Your task to perform on an android device: Search for macbook pro 13 inch on costco.com, select the first entry, add it to the cart, then select checkout. Image 0: 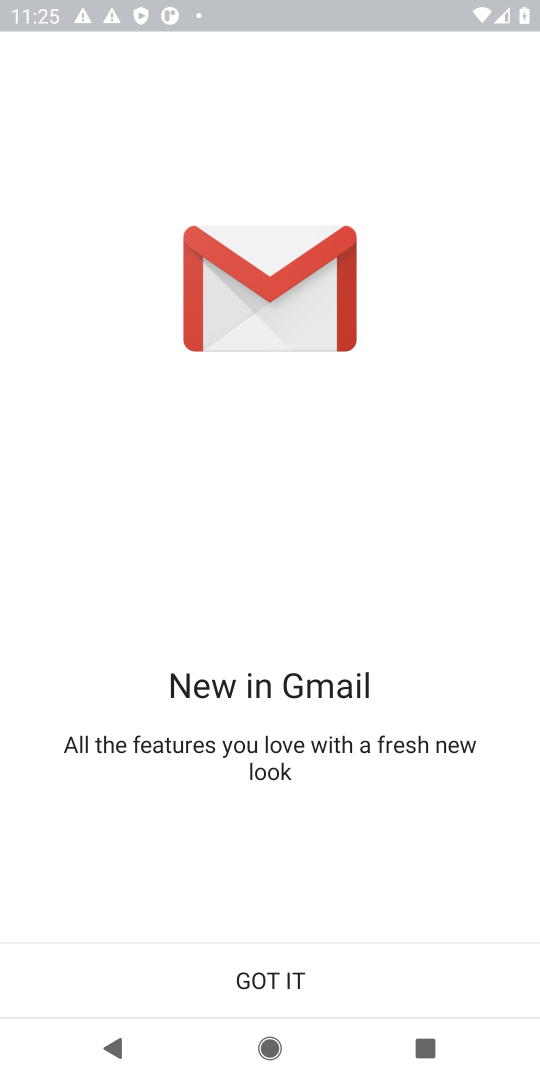
Step 0: press home button
Your task to perform on an android device: Search for macbook pro 13 inch on costco.com, select the first entry, add it to the cart, then select checkout. Image 1: 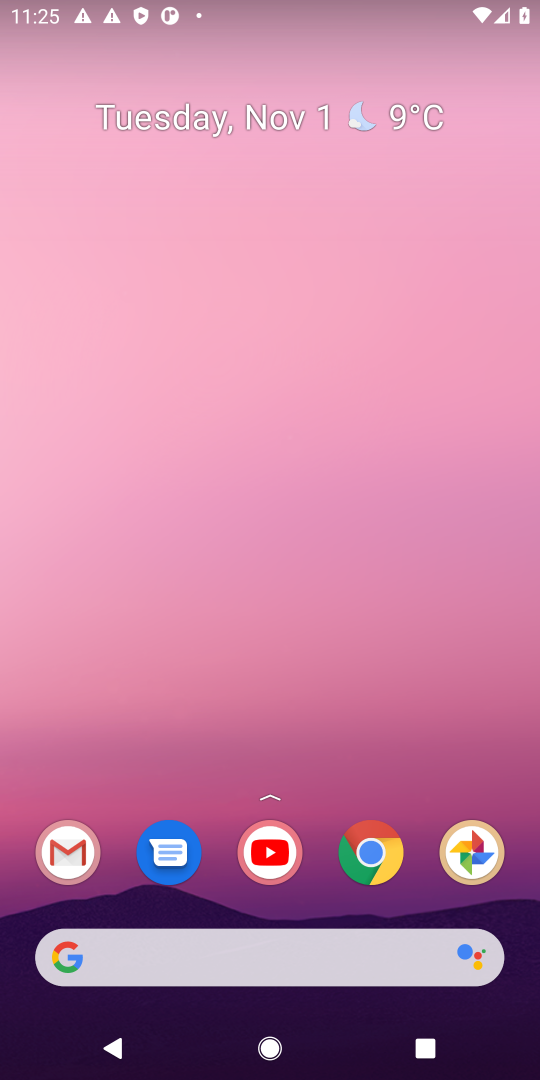
Step 1: drag from (342, 870) to (388, 343)
Your task to perform on an android device: Search for macbook pro 13 inch on costco.com, select the first entry, add it to the cart, then select checkout. Image 2: 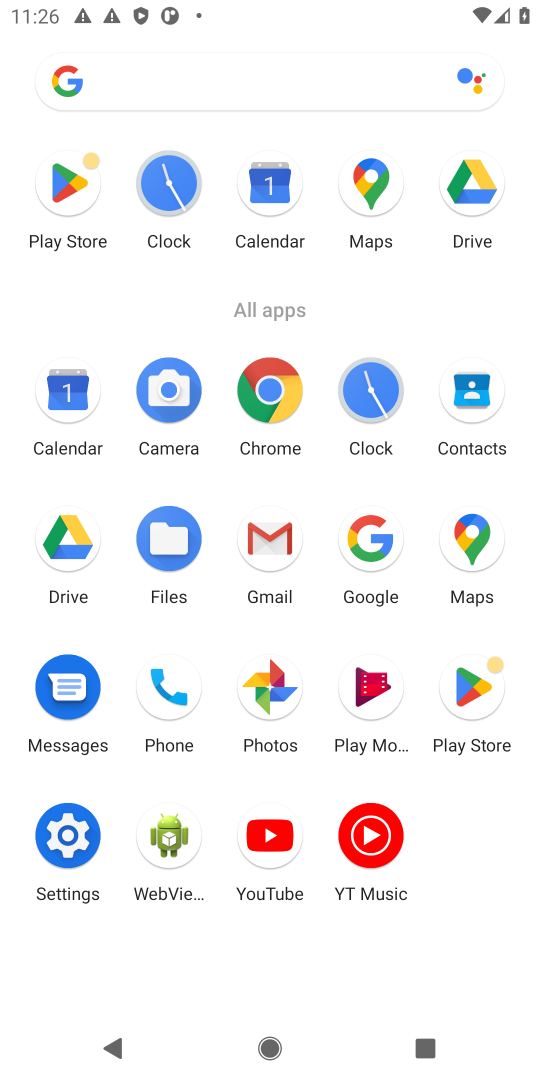
Step 2: click (379, 553)
Your task to perform on an android device: Search for macbook pro 13 inch on costco.com, select the first entry, add it to the cart, then select checkout. Image 3: 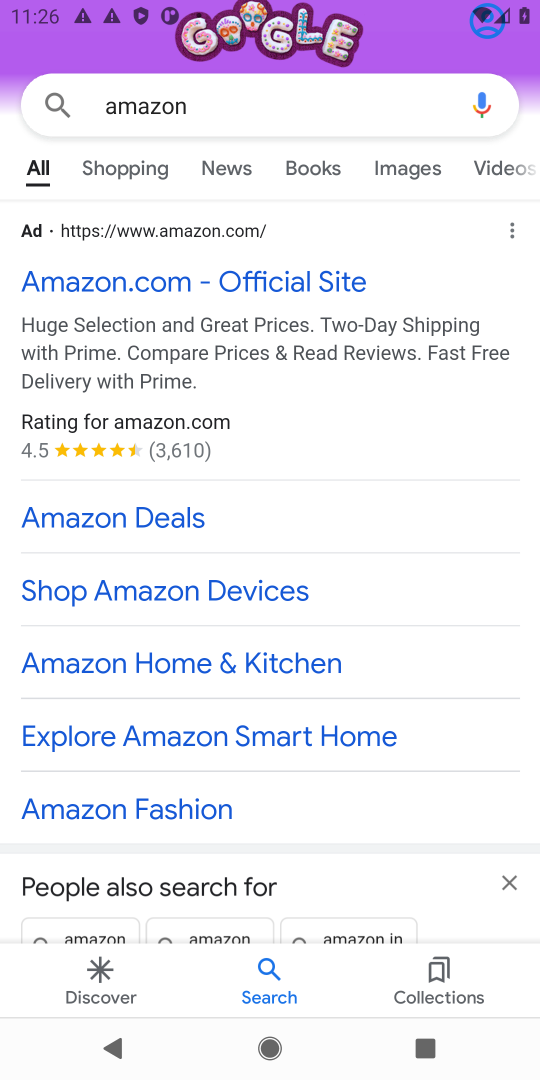
Step 3: click (371, 116)
Your task to perform on an android device: Search for macbook pro 13 inch on costco.com, select the first entry, add it to the cart, then select checkout. Image 4: 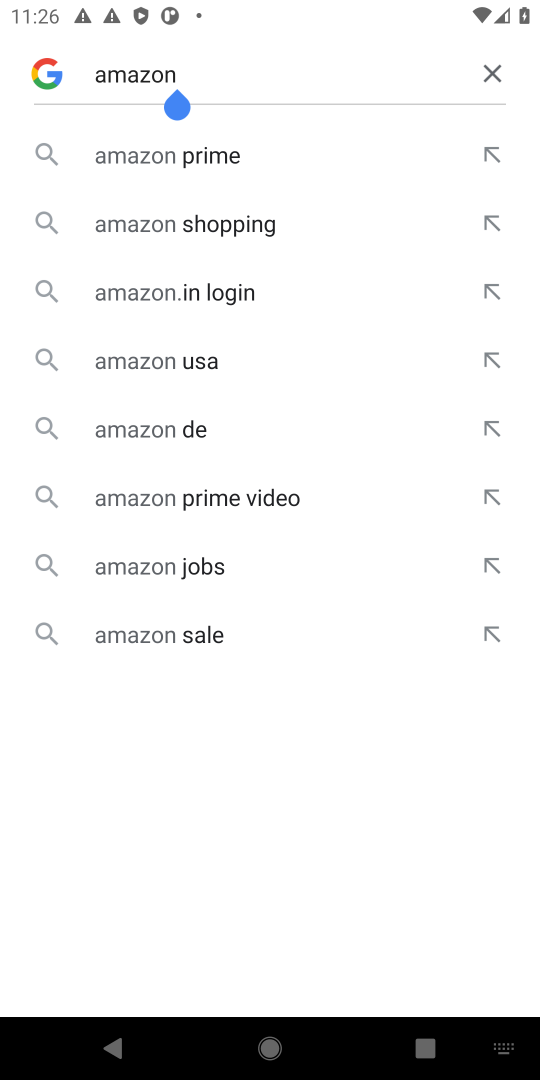
Step 4: click (490, 69)
Your task to perform on an android device: Search for macbook pro 13 inch on costco.com, select the first entry, add it to the cart, then select checkout. Image 5: 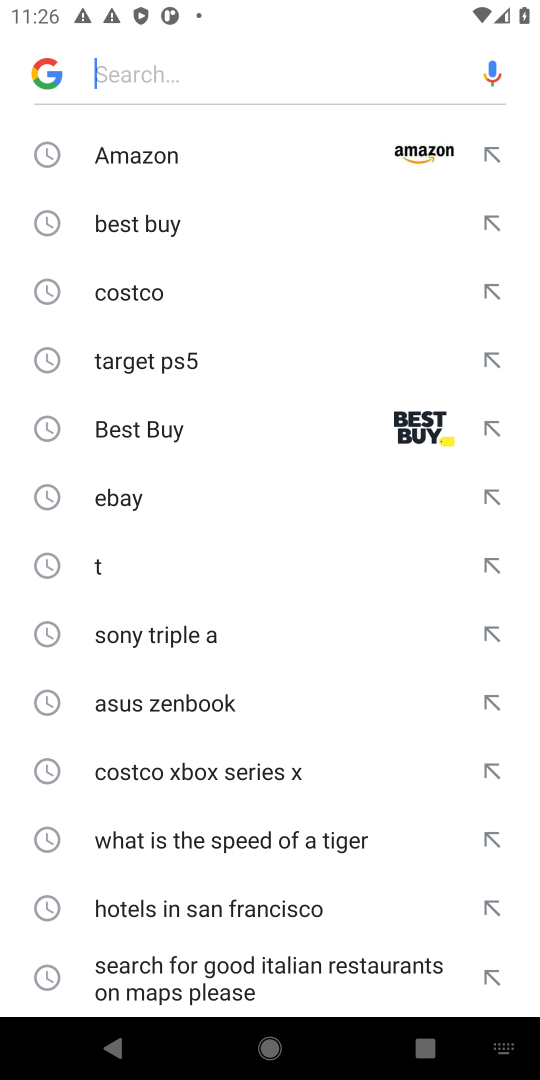
Step 5: type "costco"
Your task to perform on an android device: Search for macbook pro 13 inch on costco.com, select the first entry, add it to the cart, then select checkout. Image 6: 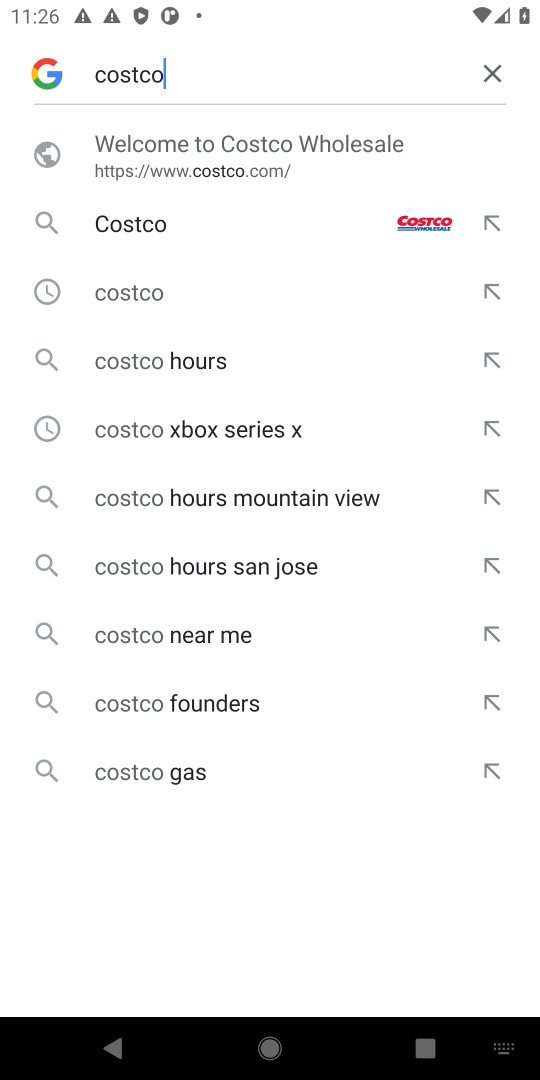
Step 6: click (341, 164)
Your task to perform on an android device: Search for macbook pro 13 inch on costco.com, select the first entry, add it to the cart, then select checkout. Image 7: 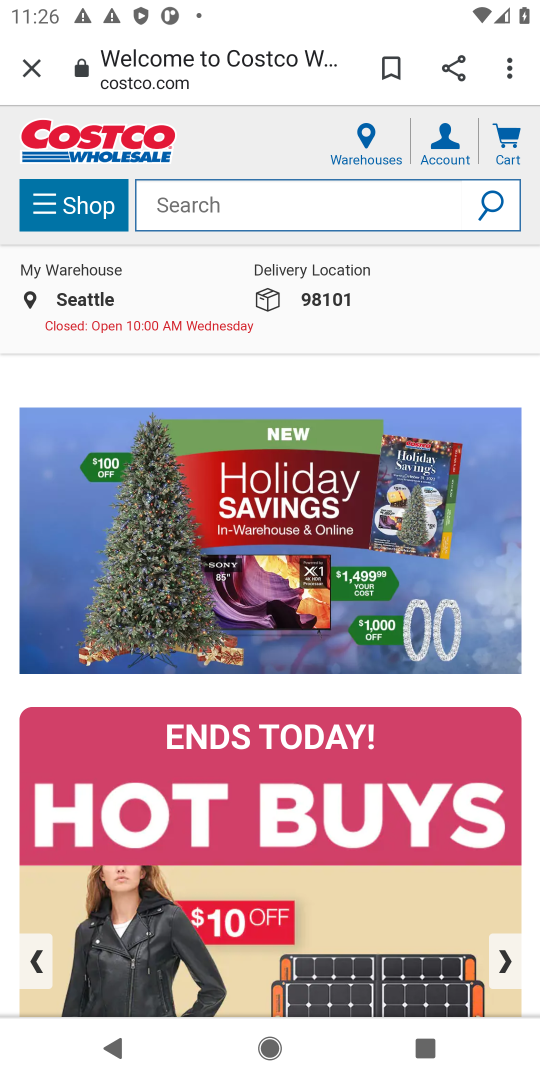
Step 7: click (211, 204)
Your task to perform on an android device: Search for macbook pro 13 inch on costco.com, select the first entry, add it to the cart, then select checkout. Image 8: 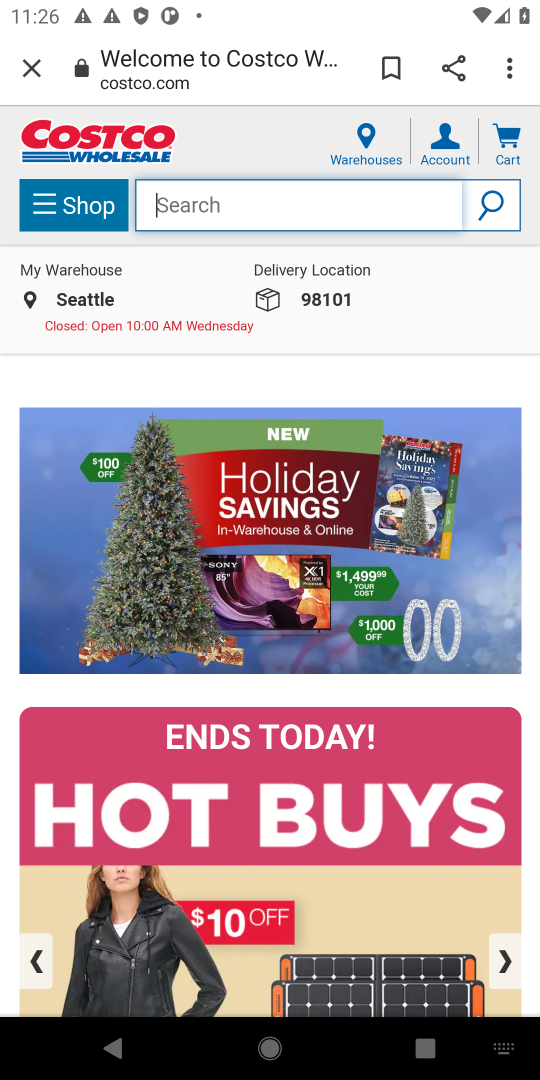
Step 8: type "macbook pro 13"
Your task to perform on an android device: Search for macbook pro 13 inch on costco.com, select the first entry, add it to the cart, then select checkout. Image 9: 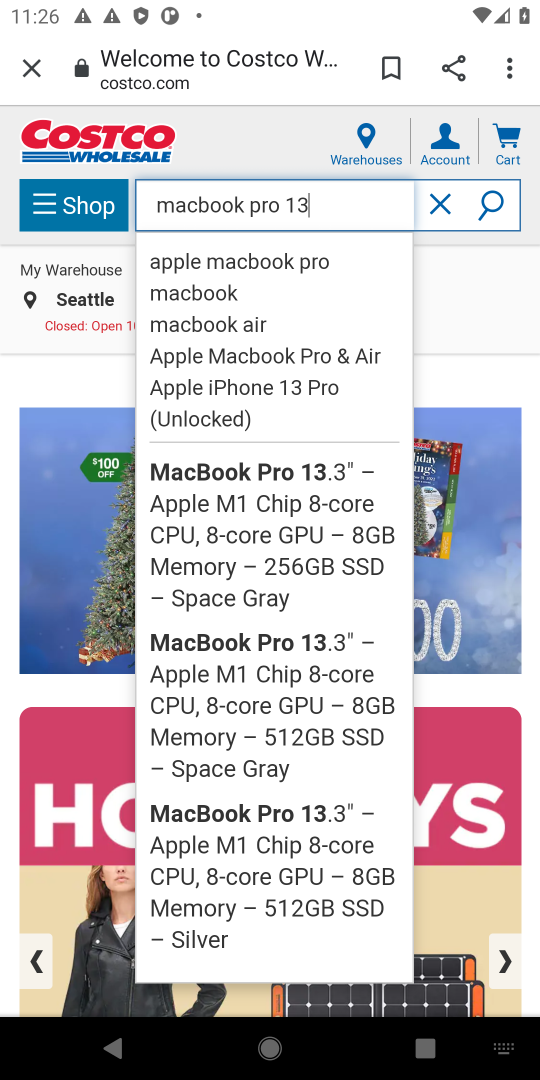
Step 9: click (257, 812)
Your task to perform on an android device: Search for macbook pro 13 inch on costco.com, select the first entry, add it to the cart, then select checkout. Image 10: 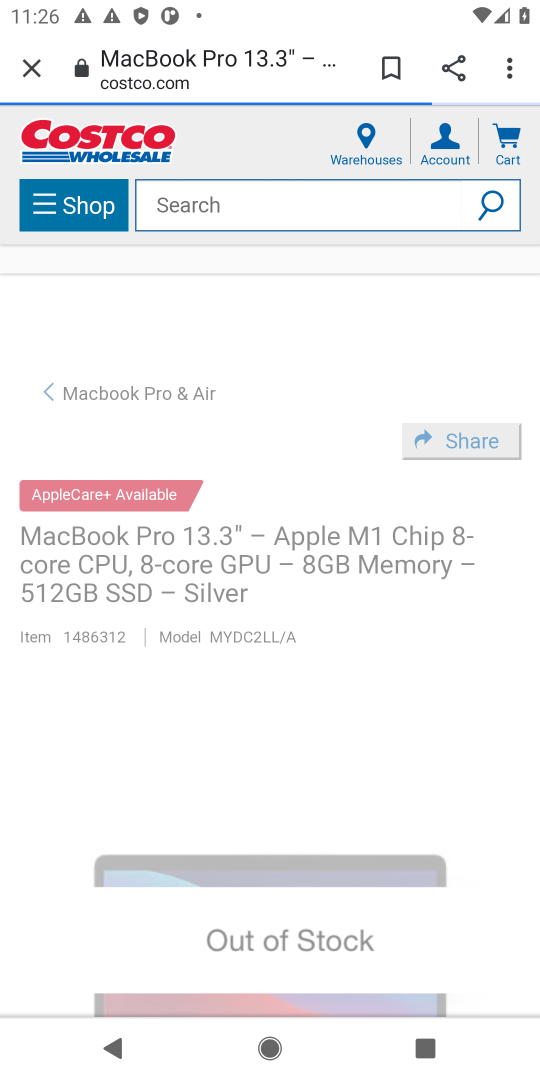
Step 10: task complete